Your task to perform on an android device: toggle sleep mode Image 0: 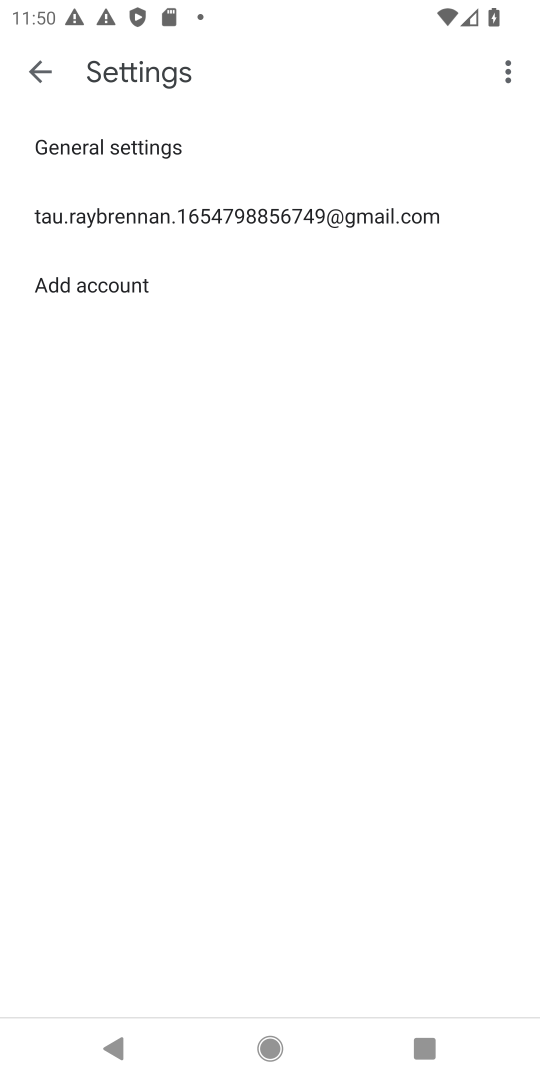
Step 0: drag from (174, 7) to (151, 825)
Your task to perform on an android device: toggle sleep mode Image 1: 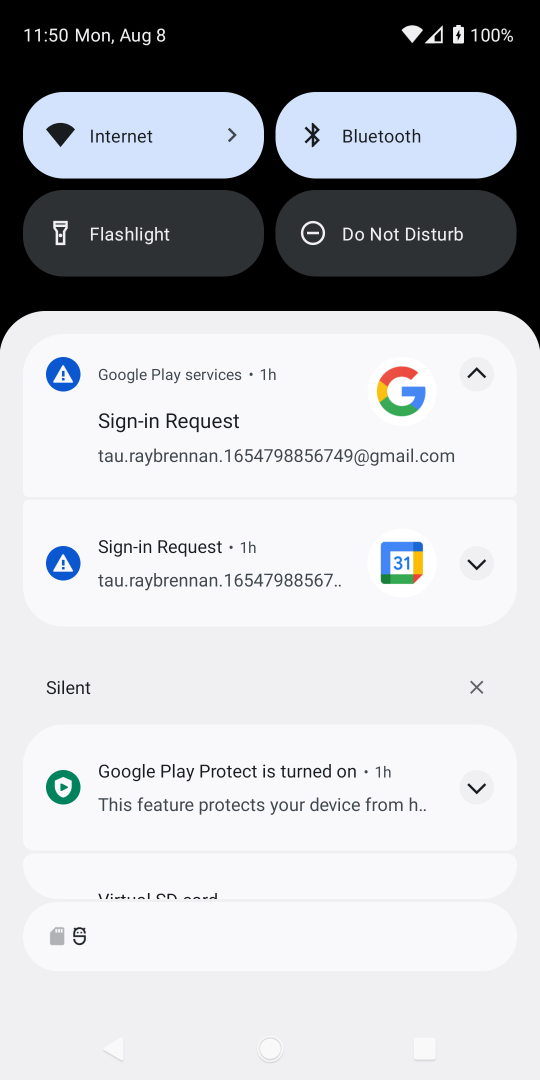
Step 1: drag from (239, 307) to (251, 1061)
Your task to perform on an android device: toggle sleep mode Image 2: 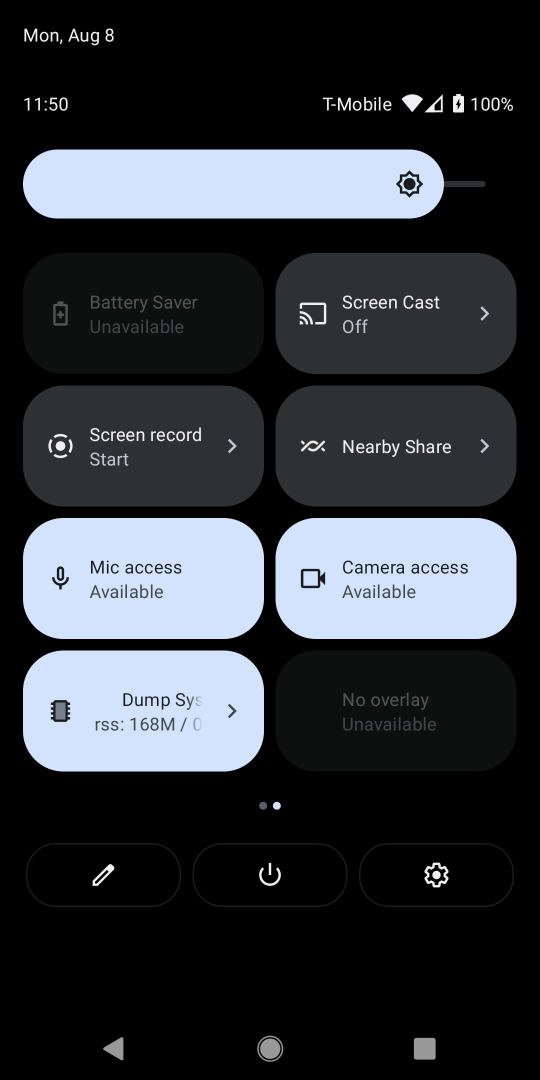
Step 2: drag from (20, 637) to (478, 623)
Your task to perform on an android device: toggle sleep mode Image 3: 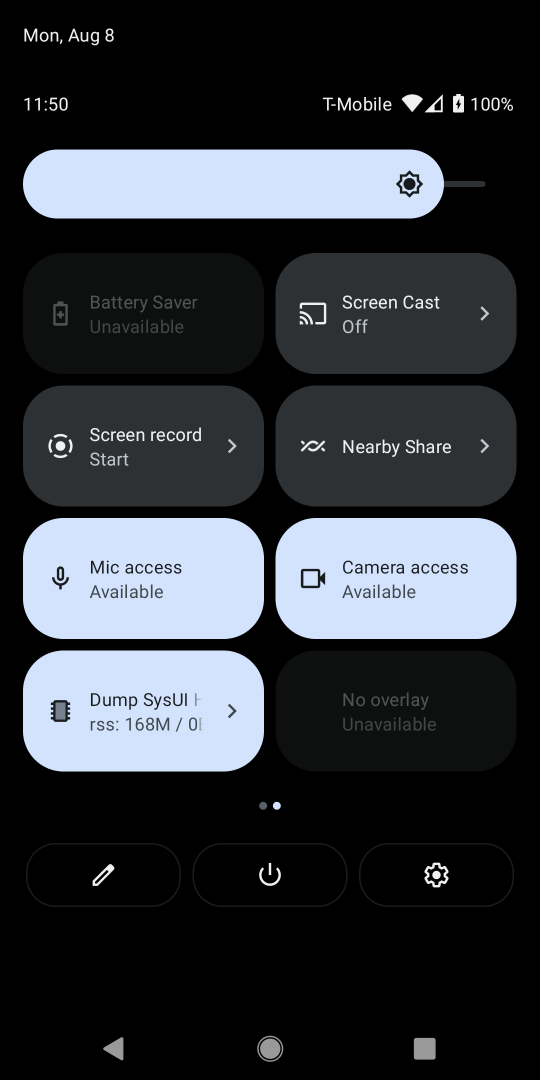
Step 3: drag from (30, 640) to (501, 654)
Your task to perform on an android device: toggle sleep mode Image 4: 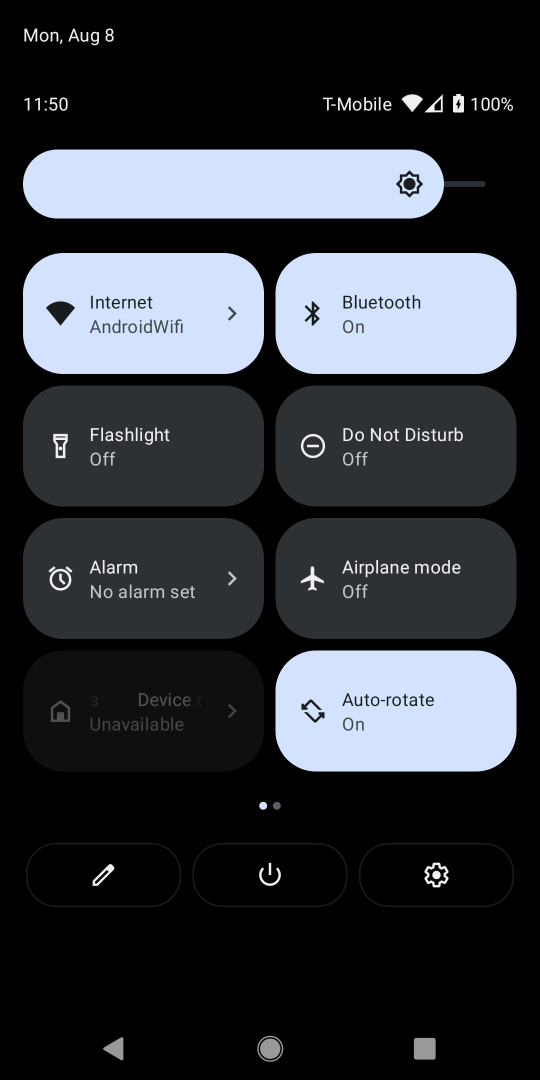
Step 4: click (311, 450)
Your task to perform on an android device: toggle sleep mode Image 5: 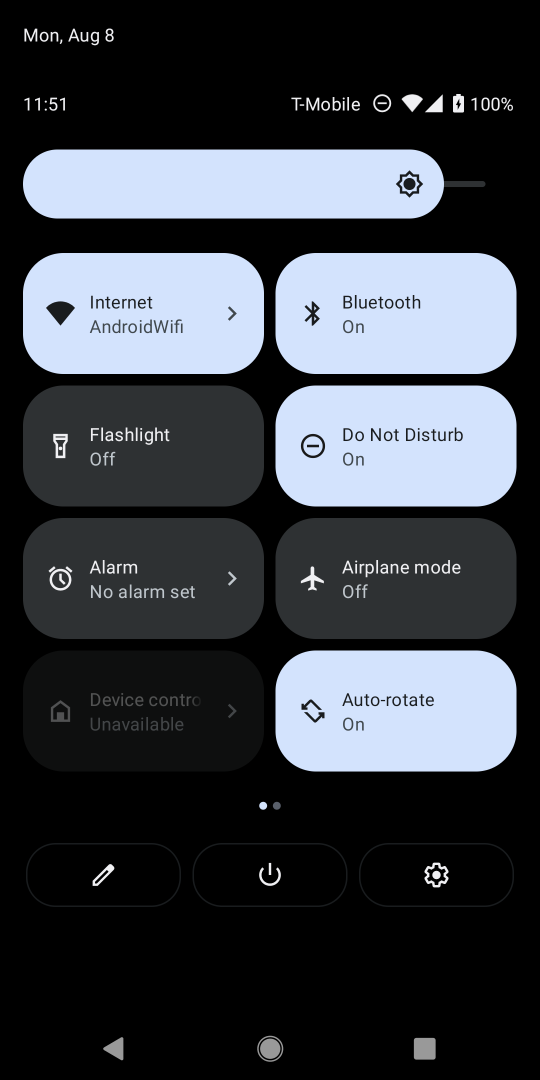
Step 5: task complete